Your task to perform on an android device: Do I have any events this weekend? Image 0: 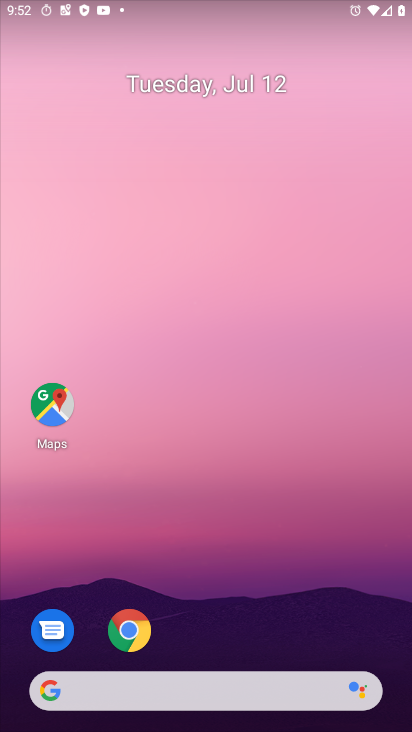
Step 0: drag from (240, 636) to (246, 135)
Your task to perform on an android device: Do I have any events this weekend? Image 1: 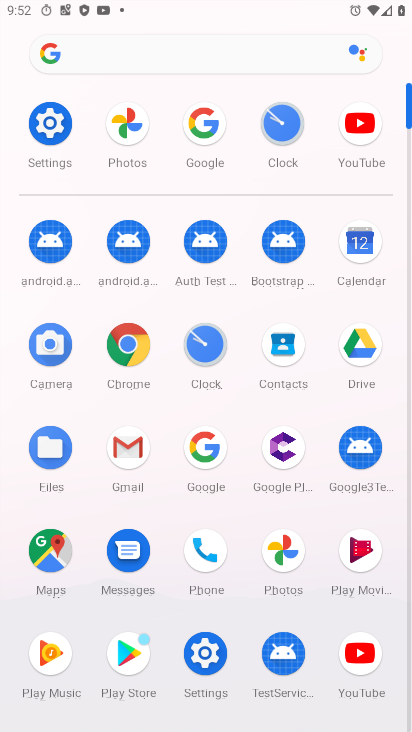
Step 1: click (355, 237)
Your task to perform on an android device: Do I have any events this weekend? Image 2: 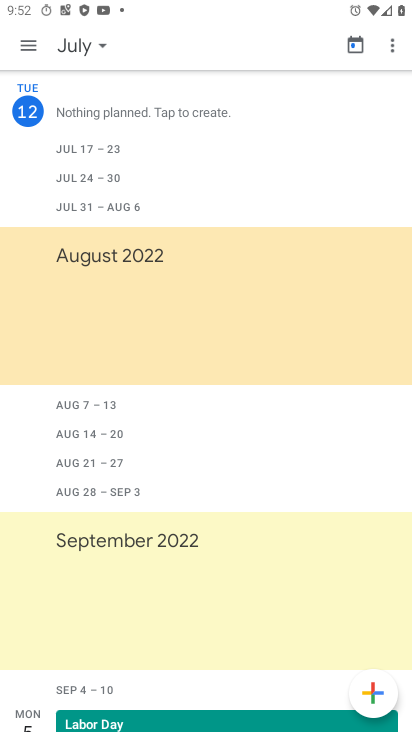
Step 2: click (97, 44)
Your task to perform on an android device: Do I have any events this weekend? Image 3: 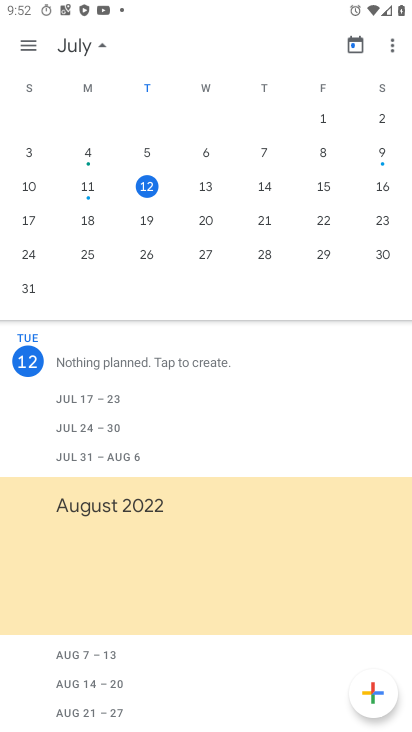
Step 3: click (329, 188)
Your task to perform on an android device: Do I have any events this weekend? Image 4: 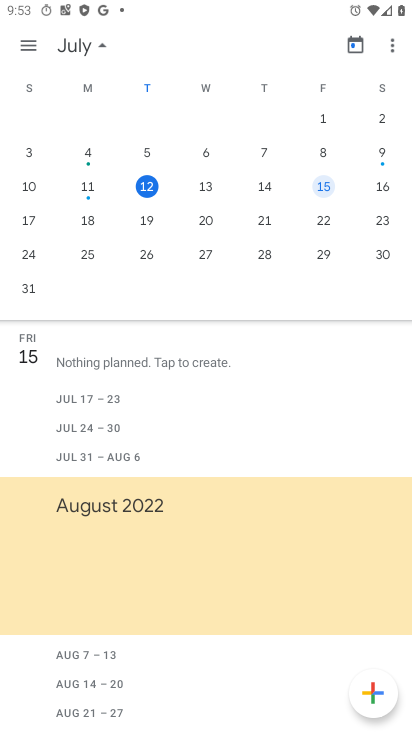
Step 4: task complete